Your task to perform on an android device: Search for sushi restaurants on Maps Image 0: 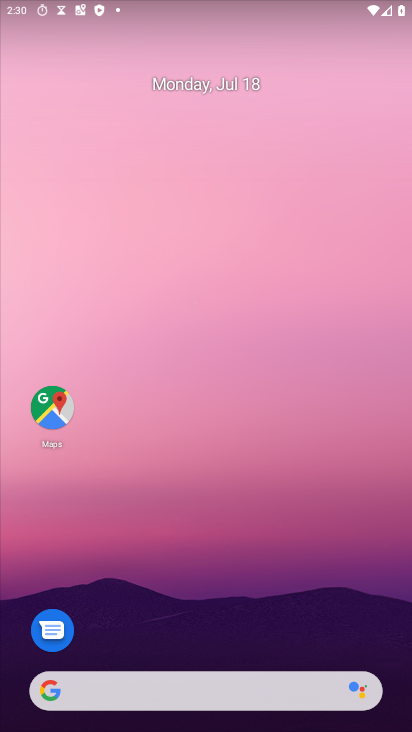
Step 0: drag from (318, 695) to (397, 37)
Your task to perform on an android device: Search for sushi restaurants on Maps Image 1: 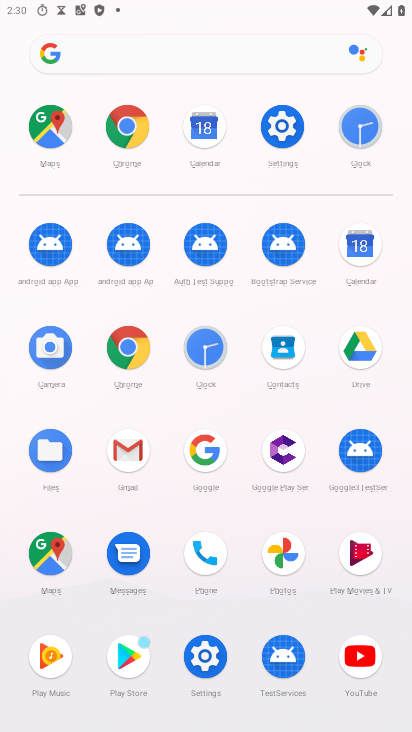
Step 1: click (49, 556)
Your task to perform on an android device: Search for sushi restaurants on Maps Image 2: 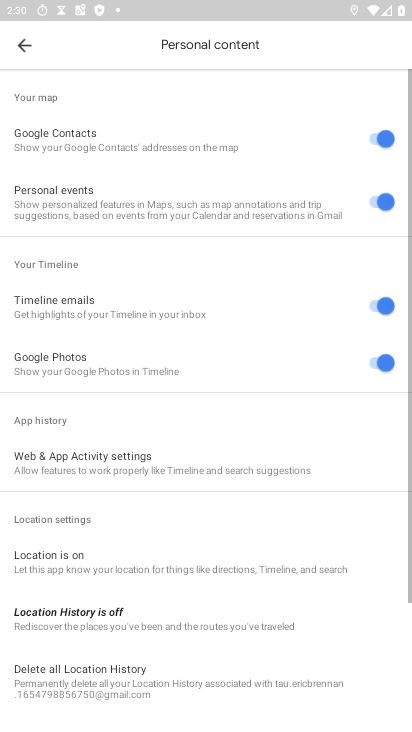
Step 2: press back button
Your task to perform on an android device: Search for sushi restaurants on Maps Image 3: 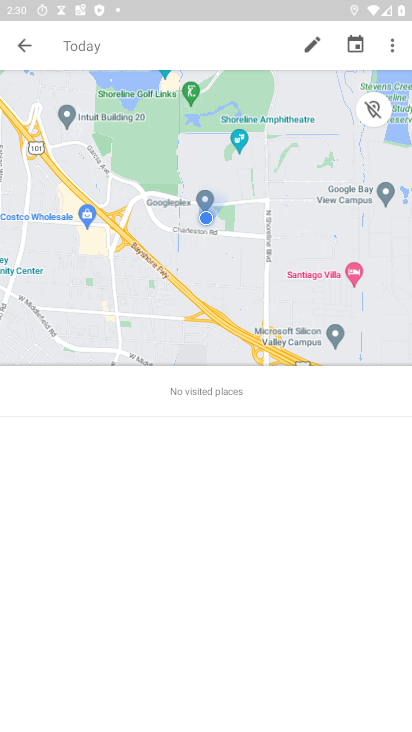
Step 3: press back button
Your task to perform on an android device: Search for sushi restaurants on Maps Image 4: 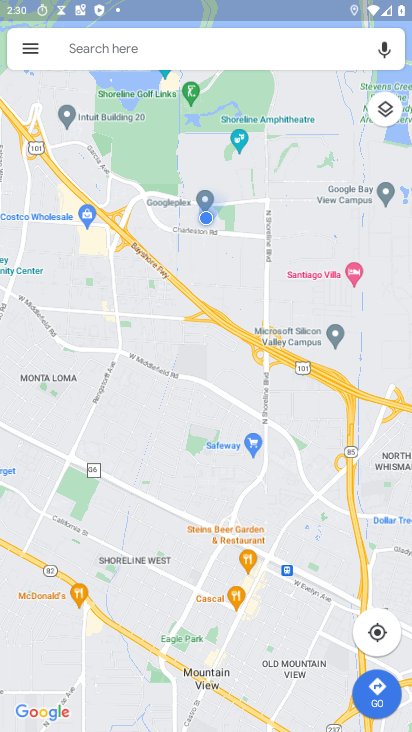
Step 4: click (189, 42)
Your task to perform on an android device: Search for sushi restaurants on Maps Image 5: 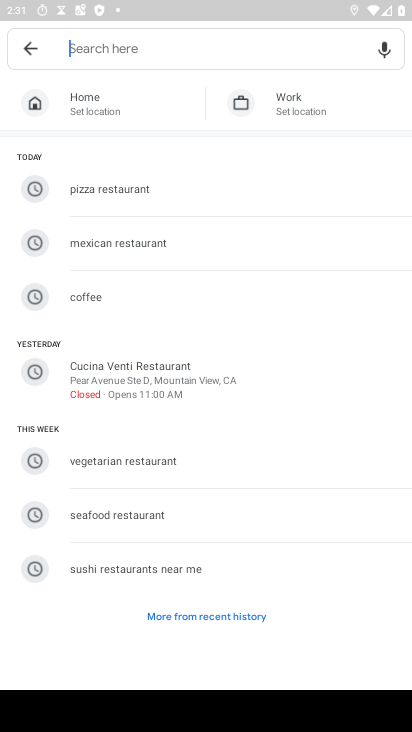
Step 5: type "sushi restaurant"
Your task to perform on an android device: Search for sushi restaurants on Maps Image 6: 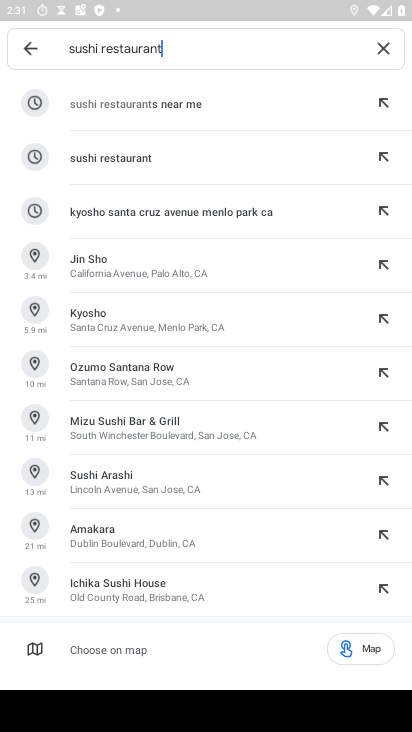
Step 6: click (220, 116)
Your task to perform on an android device: Search for sushi restaurants on Maps Image 7: 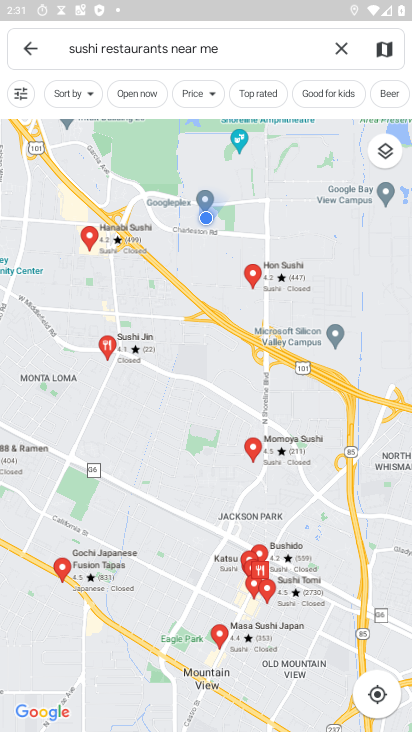
Step 7: task complete